Your task to perform on an android device: Open Google Maps Image 0: 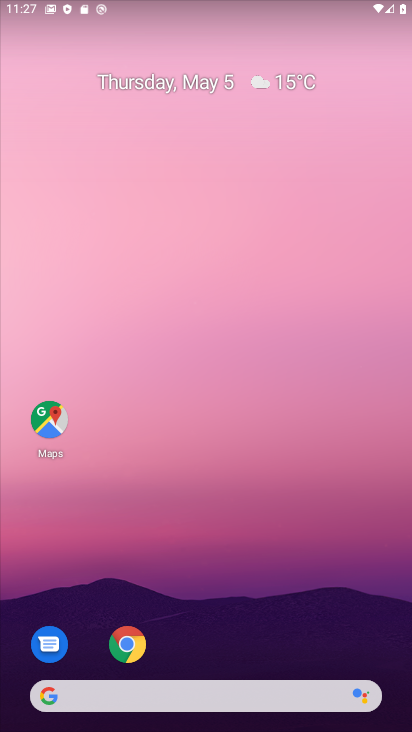
Step 0: click (37, 431)
Your task to perform on an android device: Open Google Maps Image 1: 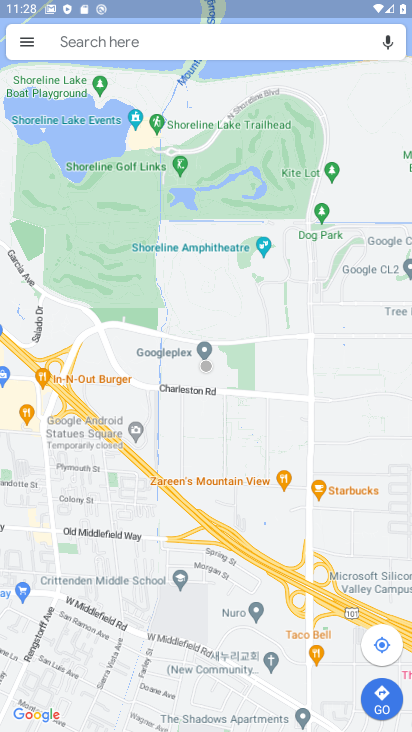
Step 1: task complete